Your task to perform on an android device: Show the shopping cart on costco. Add logitech g910 to the cart on costco Image 0: 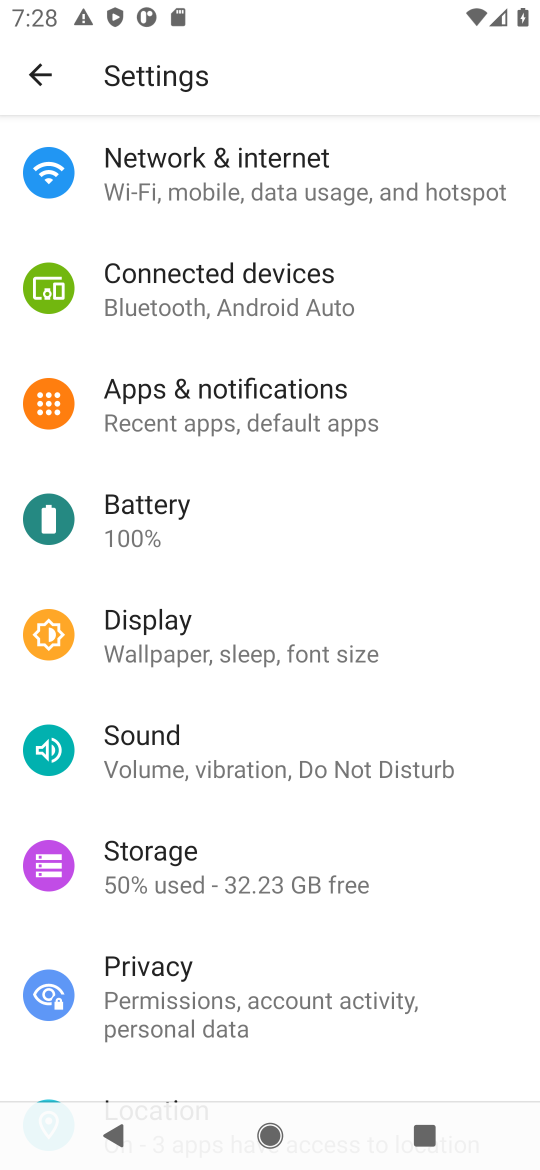
Step 0: press home button
Your task to perform on an android device: Show the shopping cart on costco. Add logitech g910 to the cart on costco Image 1: 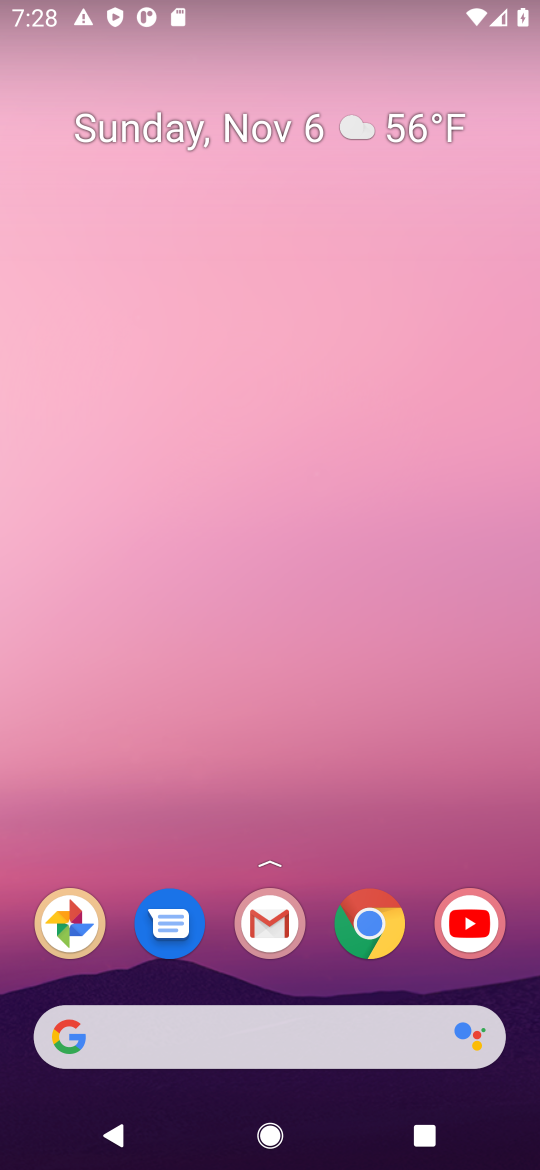
Step 1: click (387, 940)
Your task to perform on an android device: Show the shopping cart on costco. Add logitech g910 to the cart on costco Image 2: 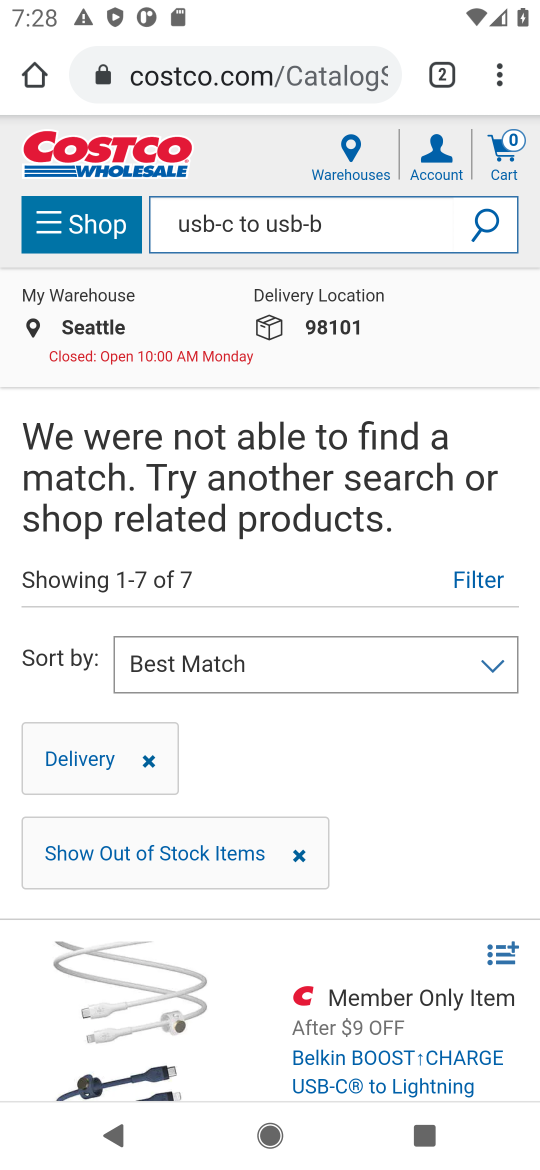
Step 2: click (502, 153)
Your task to perform on an android device: Show the shopping cart on costco. Add logitech g910 to the cart on costco Image 3: 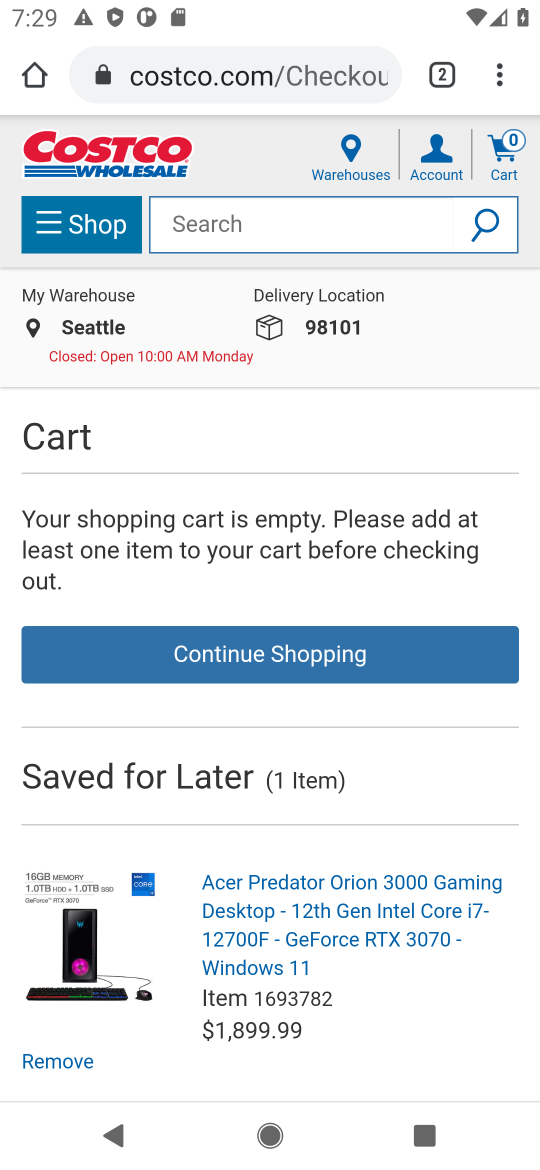
Step 3: click (248, 223)
Your task to perform on an android device: Show the shopping cart on costco. Add logitech g910 to the cart on costco Image 4: 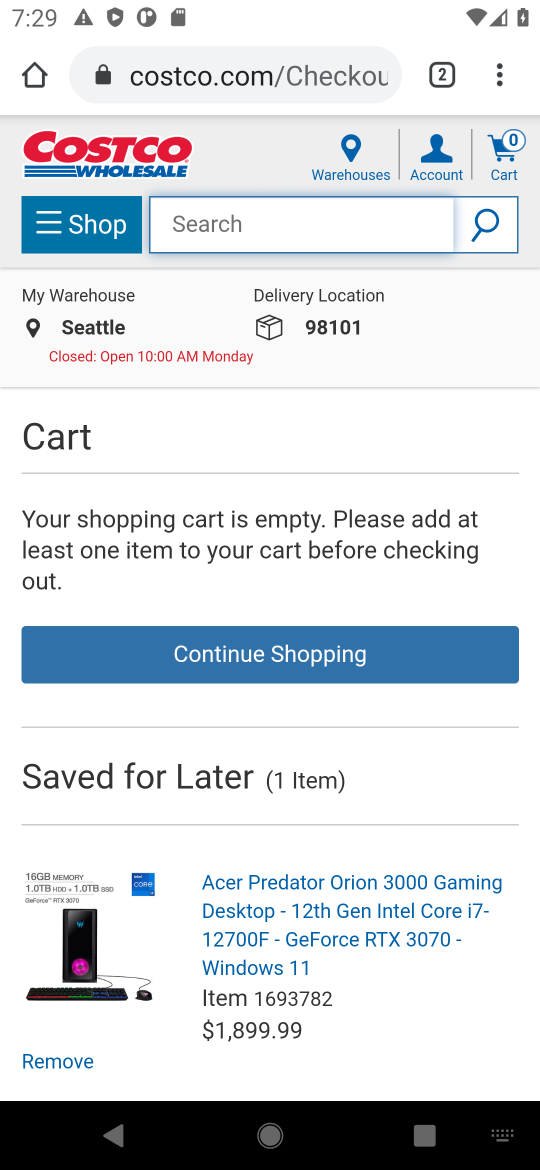
Step 4: type "logitech g910"
Your task to perform on an android device: Show the shopping cart on costco. Add logitech g910 to the cart on costco Image 5: 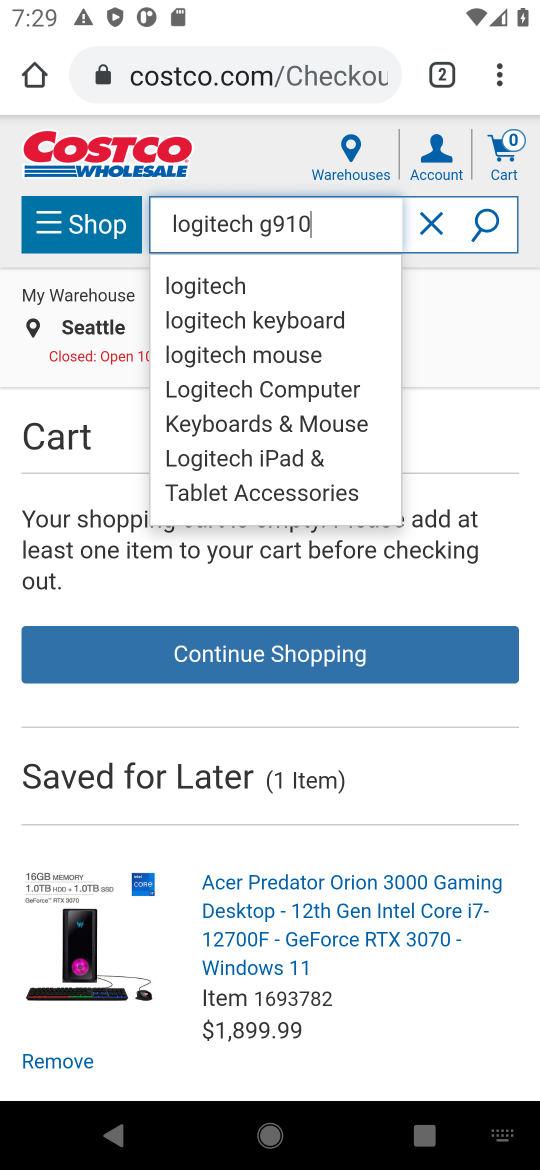
Step 5: click (483, 206)
Your task to perform on an android device: Show the shopping cart on costco. Add logitech g910 to the cart on costco Image 6: 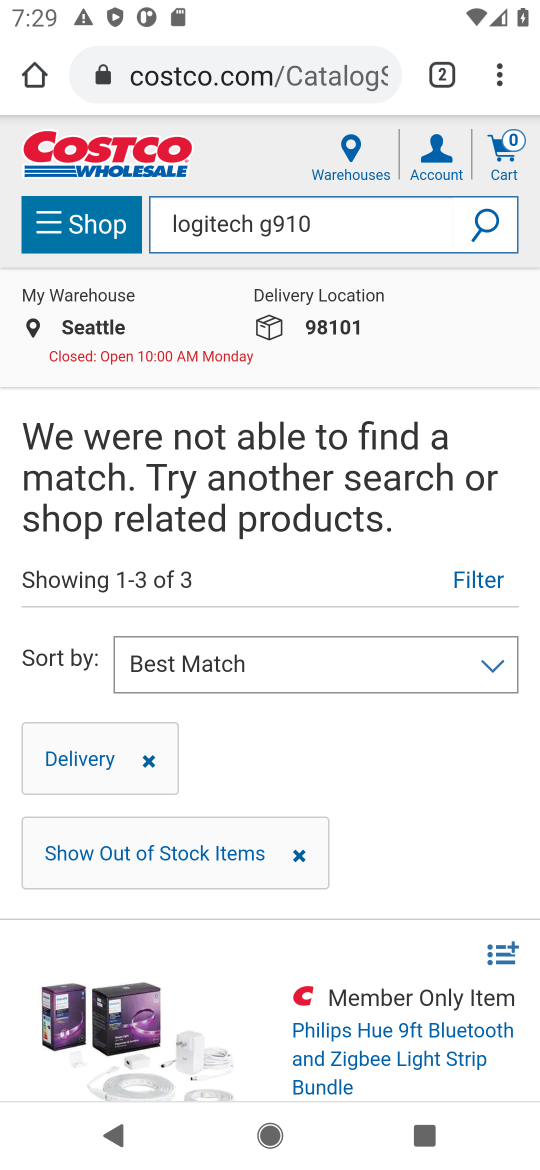
Step 6: task complete